Your task to perform on an android device: Do I have any events tomorrow? Image 0: 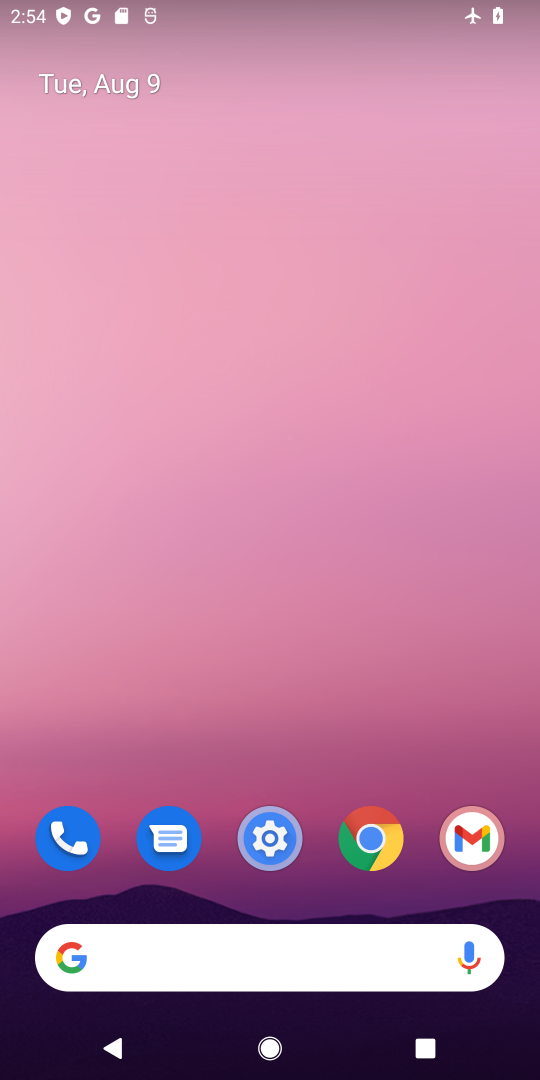
Step 0: drag from (424, 787) to (446, 351)
Your task to perform on an android device: Do I have any events tomorrow? Image 1: 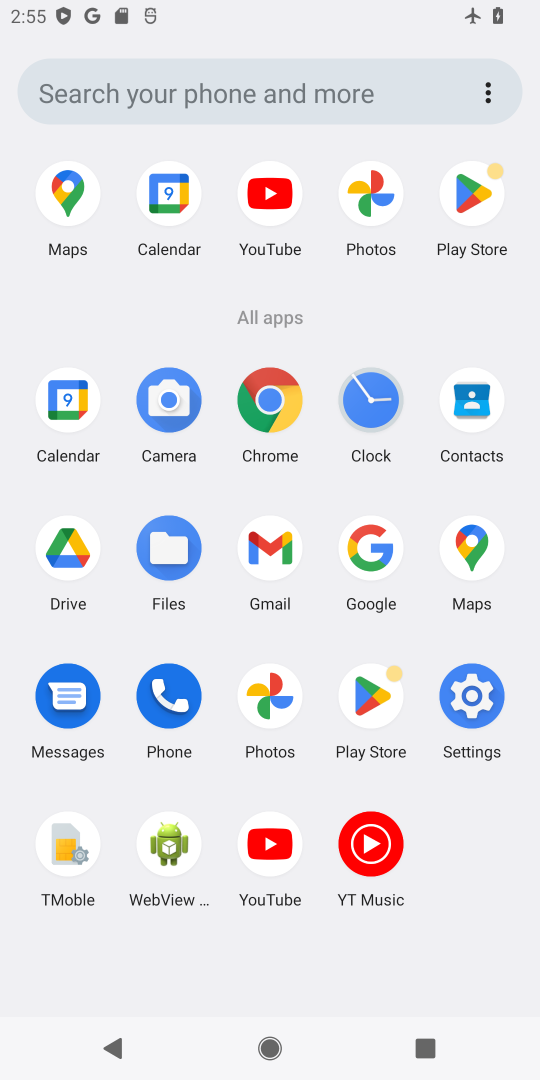
Step 1: click (59, 399)
Your task to perform on an android device: Do I have any events tomorrow? Image 2: 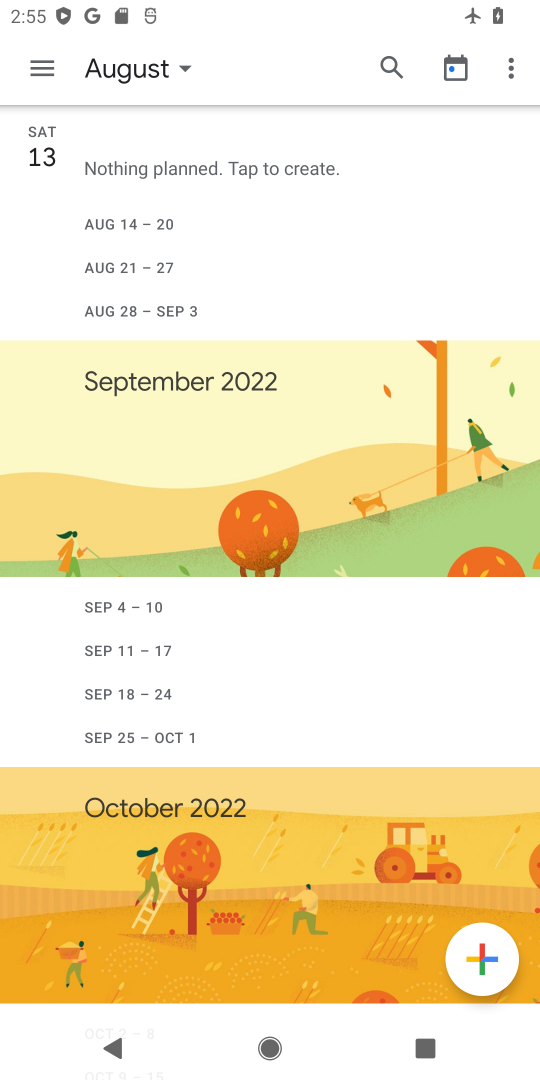
Step 2: click (164, 78)
Your task to perform on an android device: Do I have any events tomorrow? Image 3: 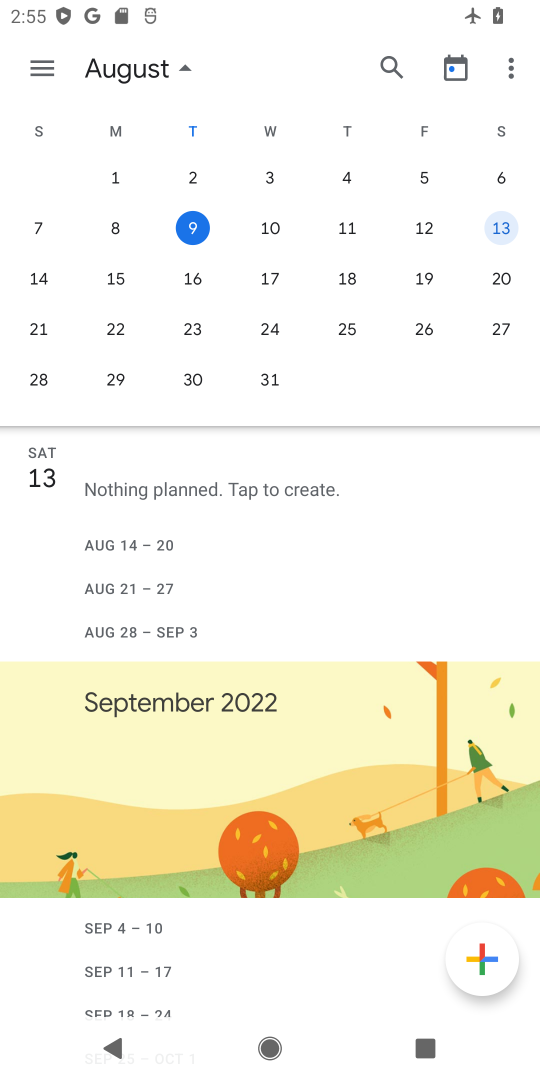
Step 3: click (281, 227)
Your task to perform on an android device: Do I have any events tomorrow? Image 4: 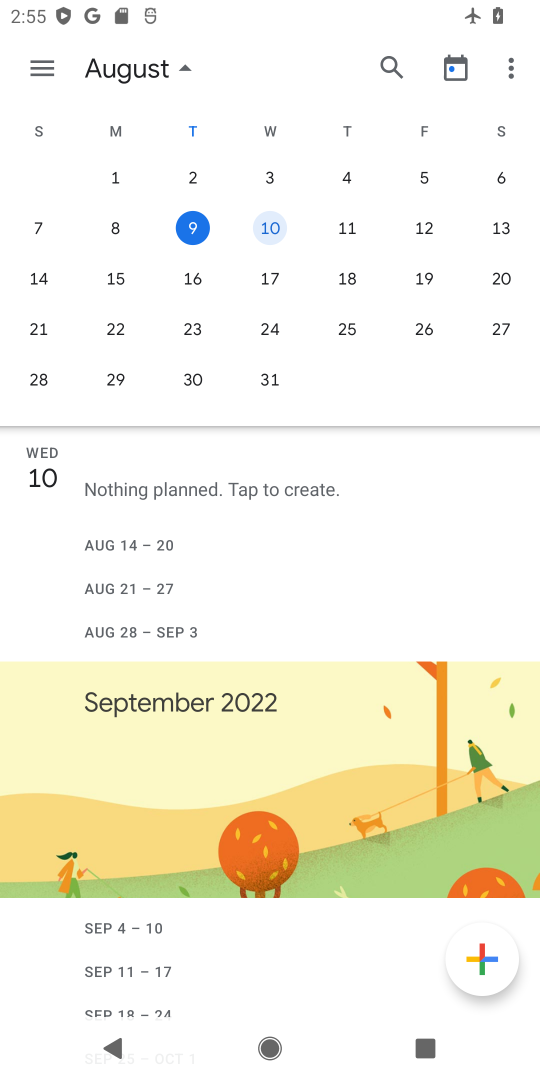
Step 4: click (260, 223)
Your task to perform on an android device: Do I have any events tomorrow? Image 5: 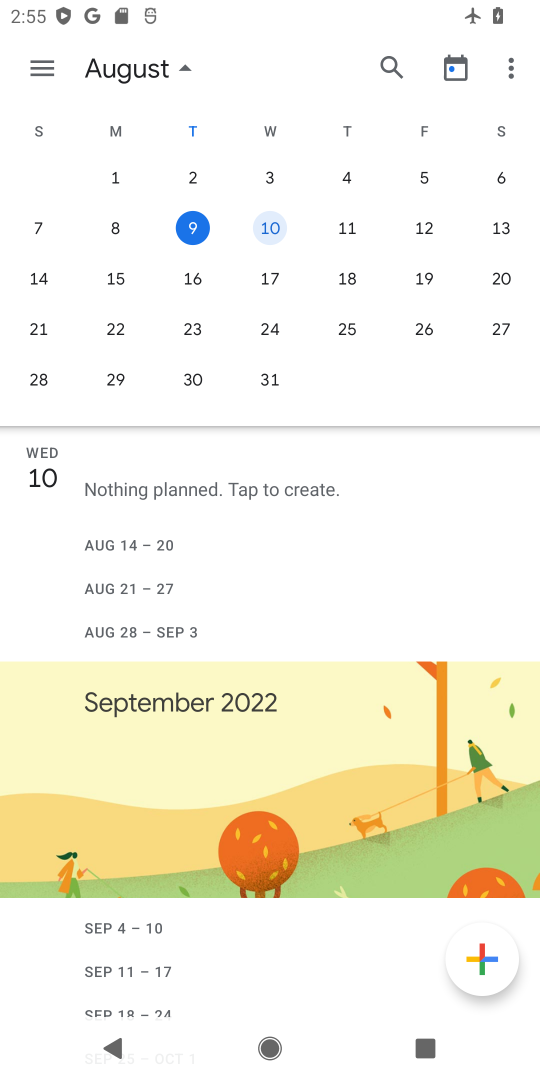
Step 5: task complete